Your task to perform on an android device: clear all cookies in the chrome app Image 0: 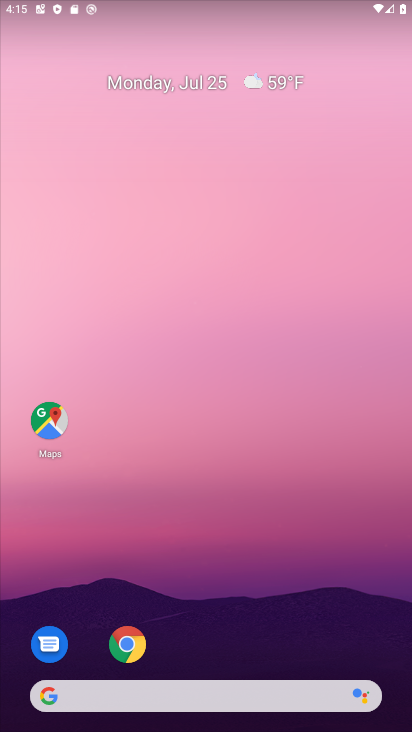
Step 0: drag from (184, 671) to (222, 144)
Your task to perform on an android device: clear all cookies in the chrome app Image 1: 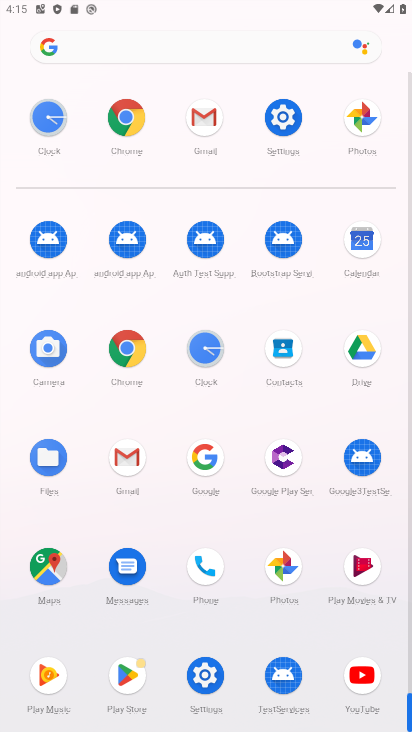
Step 1: click (137, 123)
Your task to perform on an android device: clear all cookies in the chrome app Image 2: 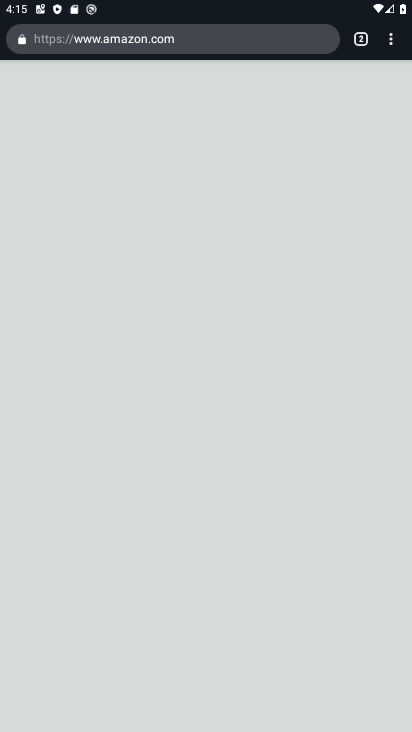
Step 2: click (386, 38)
Your task to perform on an android device: clear all cookies in the chrome app Image 3: 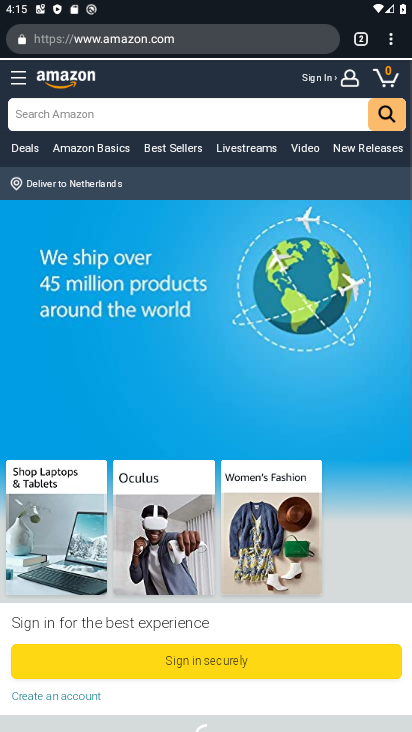
Step 3: click (387, 43)
Your task to perform on an android device: clear all cookies in the chrome app Image 4: 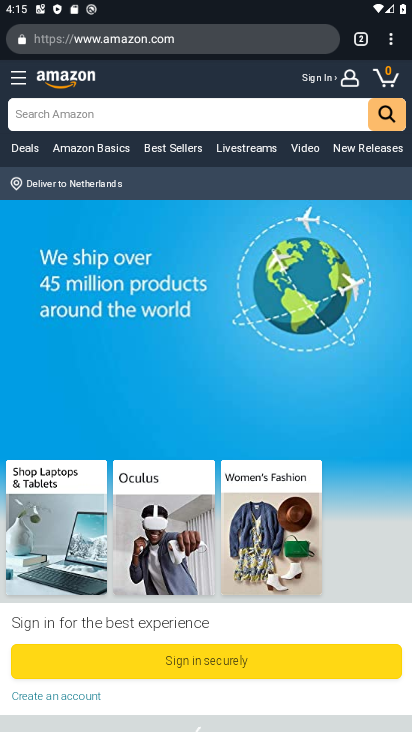
Step 4: click (391, 44)
Your task to perform on an android device: clear all cookies in the chrome app Image 5: 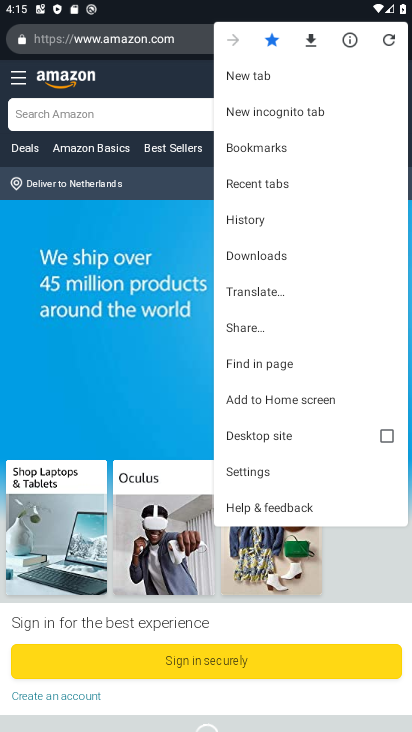
Step 5: click (254, 468)
Your task to perform on an android device: clear all cookies in the chrome app Image 6: 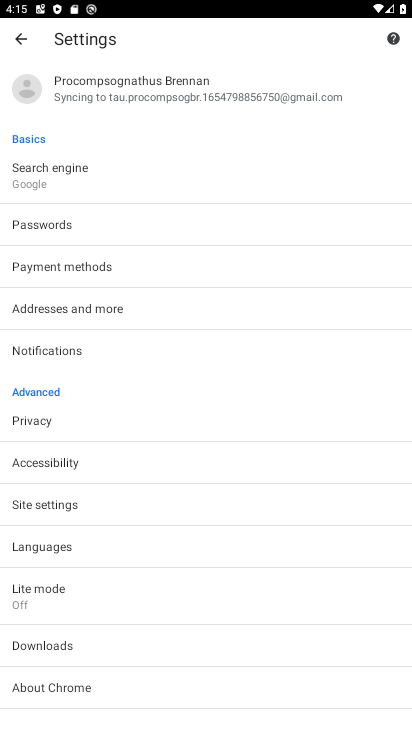
Step 6: click (19, 422)
Your task to perform on an android device: clear all cookies in the chrome app Image 7: 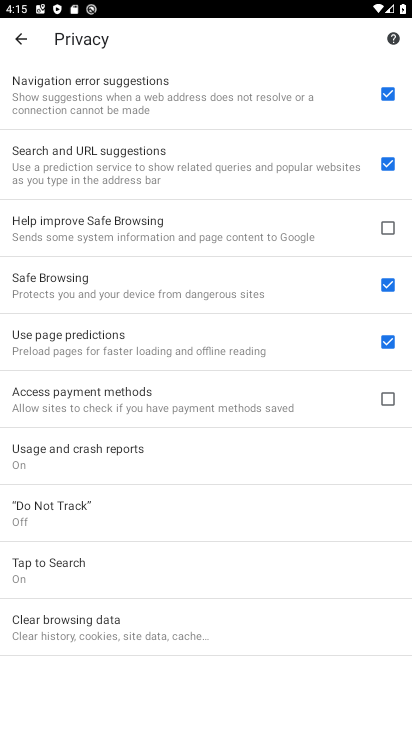
Step 7: click (60, 628)
Your task to perform on an android device: clear all cookies in the chrome app Image 8: 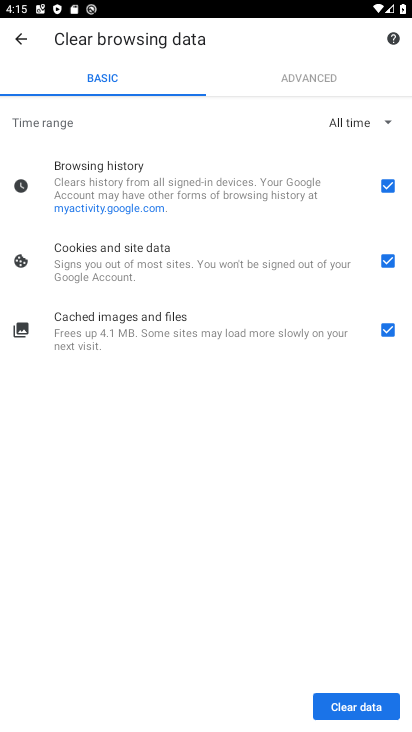
Step 8: click (339, 710)
Your task to perform on an android device: clear all cookies in the chrome app Image 9: 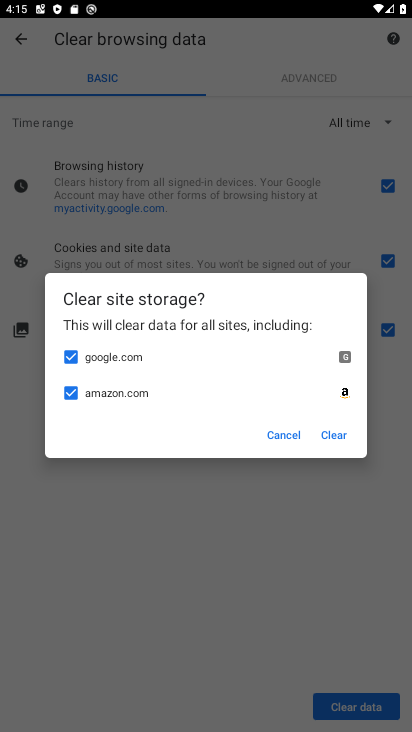
Step 9: click (333, 445)
Your task to perform on an android device: clear all cookies in the chrome app Image 10: 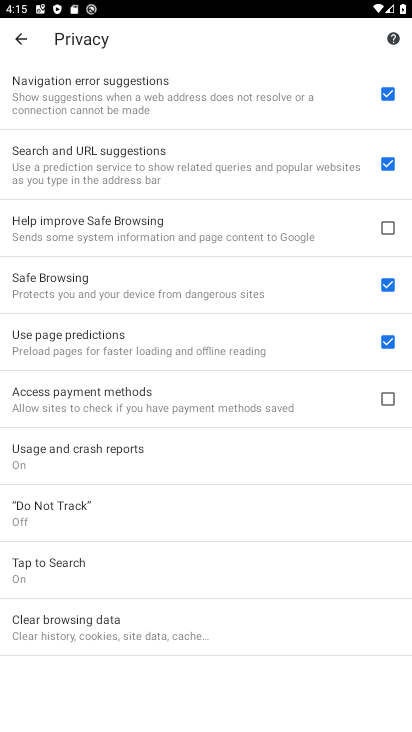
Step 10: task complete